Your task to perform on an android device: Do I have any events today? Image 0: 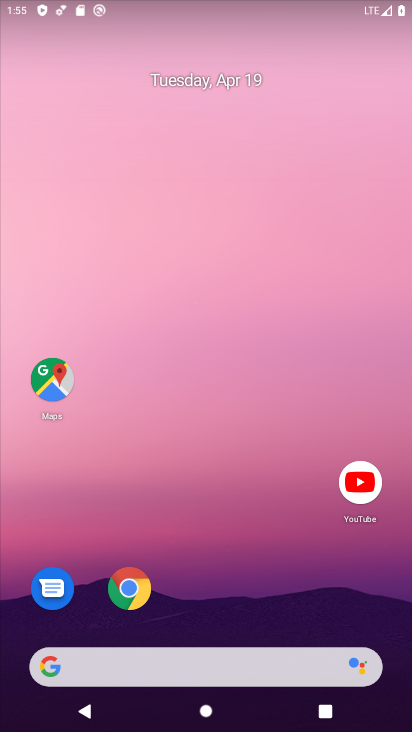
Step 0: drag from (241, 543) to (273, 117)
Your task to perform on an android device: Do I have any events today? Image 1: 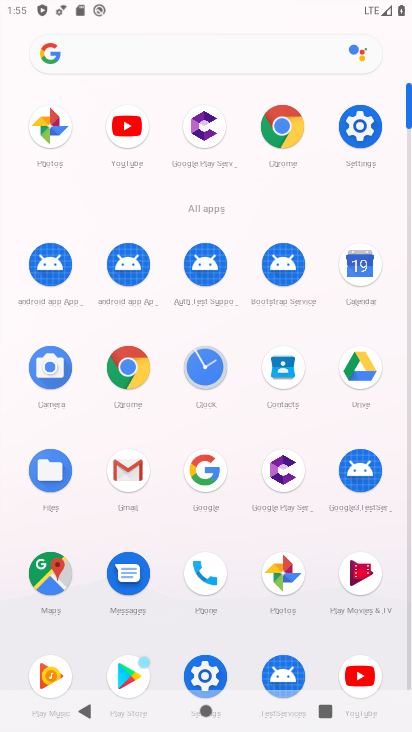
Step 1: click (368, 272)
Your task to perform on an android device: Do I have any events today? Image 2: 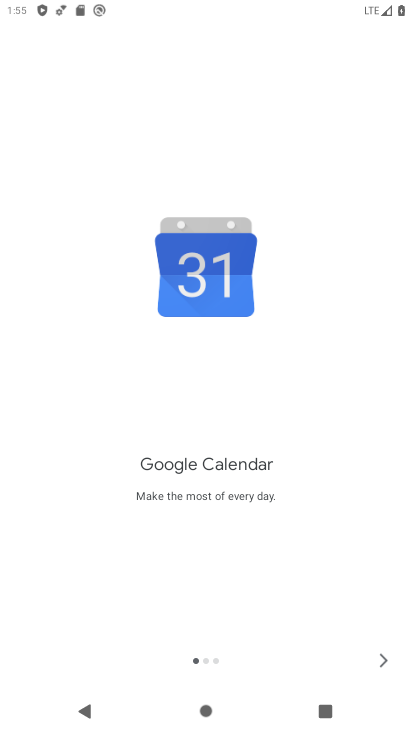
Step 2: click (380, 661)
Your task to perform on an android device: Do I have any events today? Image 3: 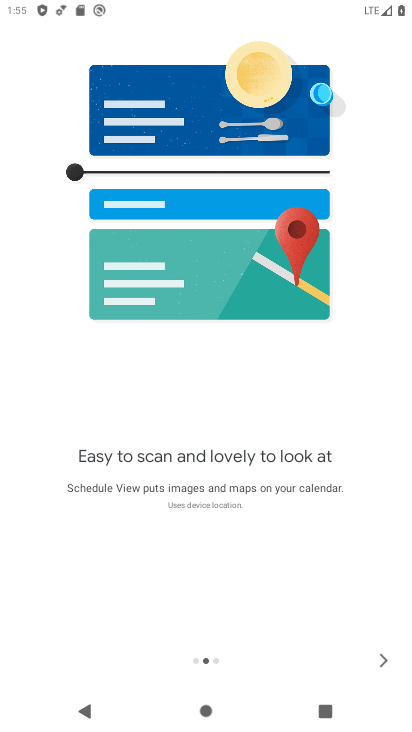
Step 3: click (380, 661)
Your task to perform on an android device: Do I have any events today? Image 4: 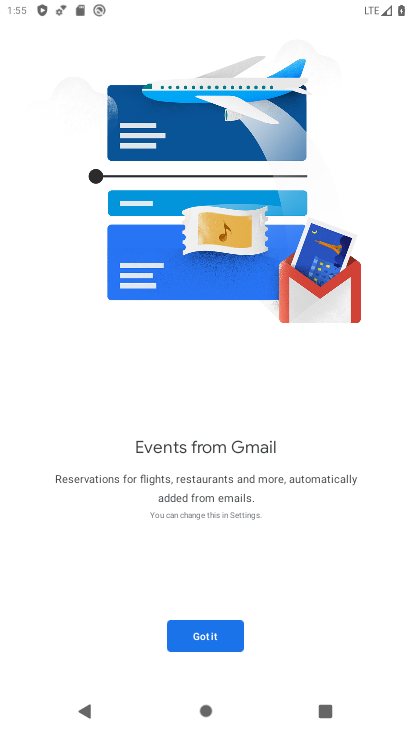
Step 4: click (205, 641)
Your task to perform on an android device: Do I have any events today? Image 5: 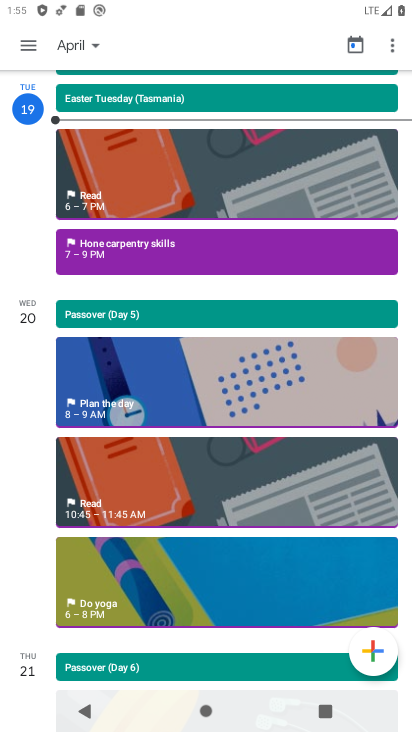
Step 5: task complete